Your task to perform on an android device: Open Chrome and go to settings Image 0: 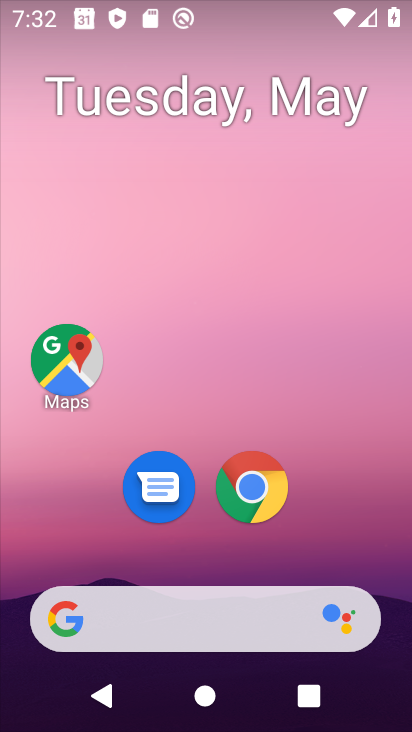
Step 0: drag from (382, 565) to (385, 258)
Your task to perform on an android device: Open Chrome and go to settings Image 1: 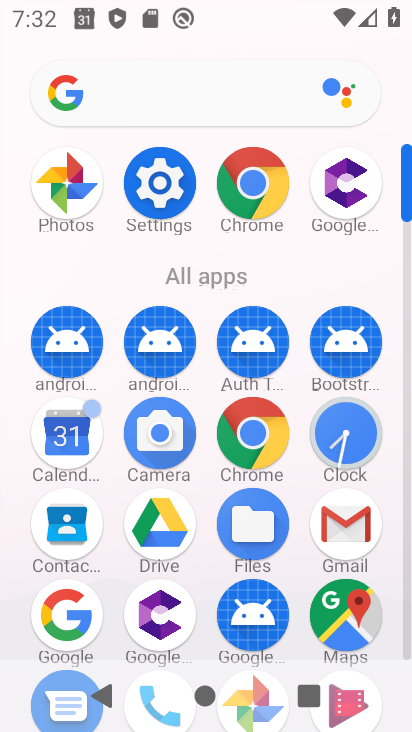
Step 1: click (269, 438)
Your task to perform on an android device: Open Chrome and go to settings Image 2: 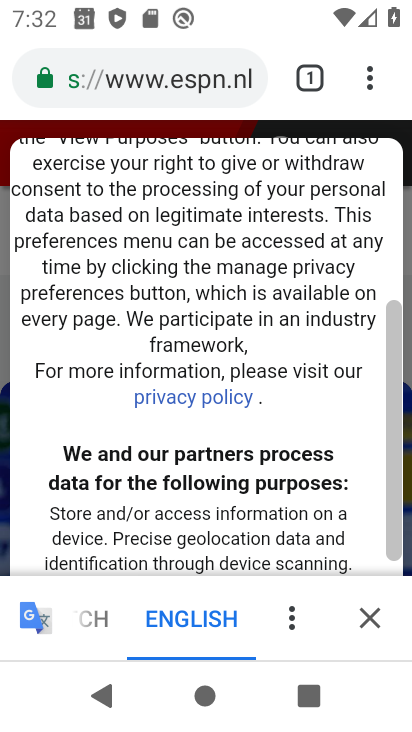
Step 2: click (371, 90)
Your task to perform on an android device: Open Chrome and go to settings Image 3: 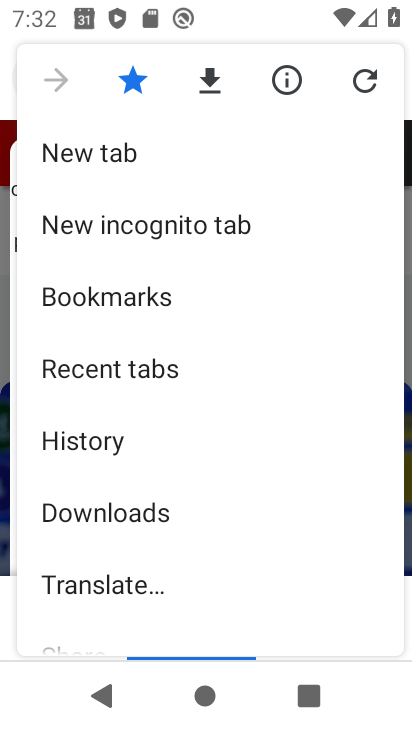
Step 3: drag from (319, 495) to (326, 395)
Your task to perform on an android device: Open Chrome and go to settings Image 4: 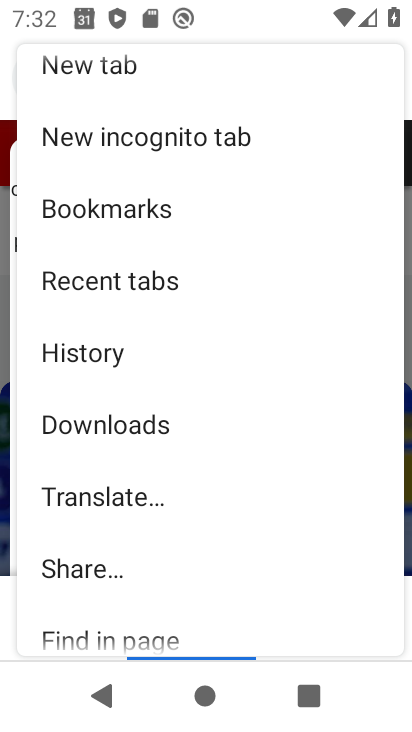
Step 4: drag from (337, 485) to (345, 315)
Your task to perform on an android device: Open Chrome and go to settings Image 5: 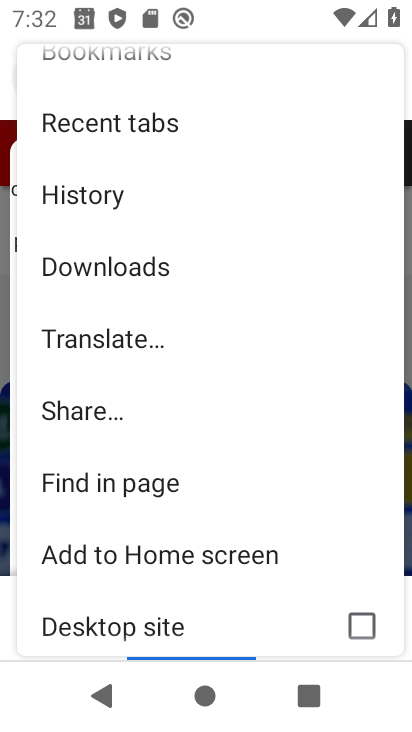
Step 5: drag from (311, 521) to (328, 382)
Your task to perform on an android device: Open Chrome and go to settings Image 6: 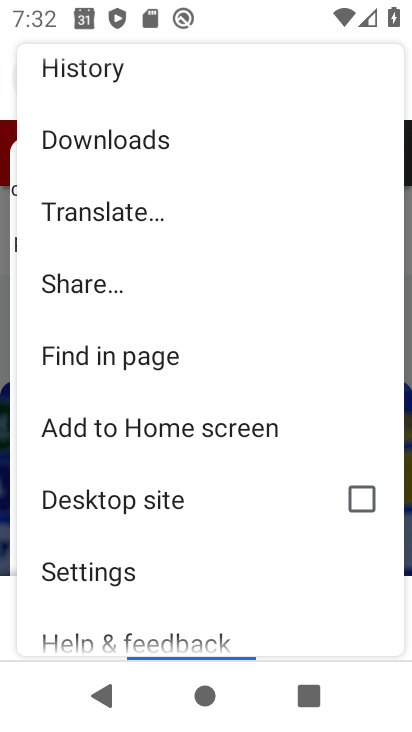
Step 6: click (128, 579)
Your task to perform on an android device: Open Chrome and go to settings Image 7: 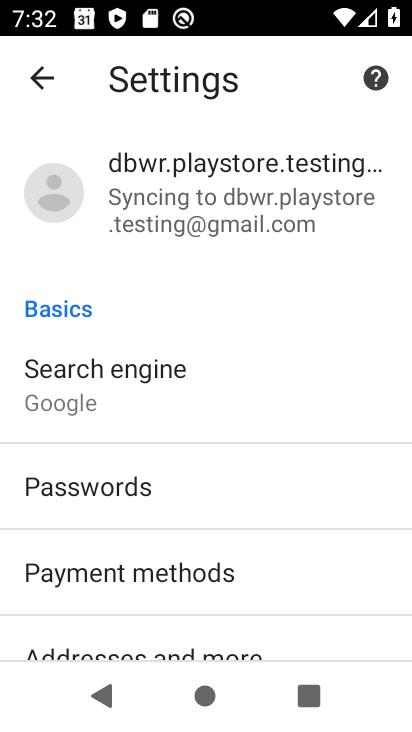
Step 7: task complete